Your task to perform on an android device: toggle sleep mode Image 0: 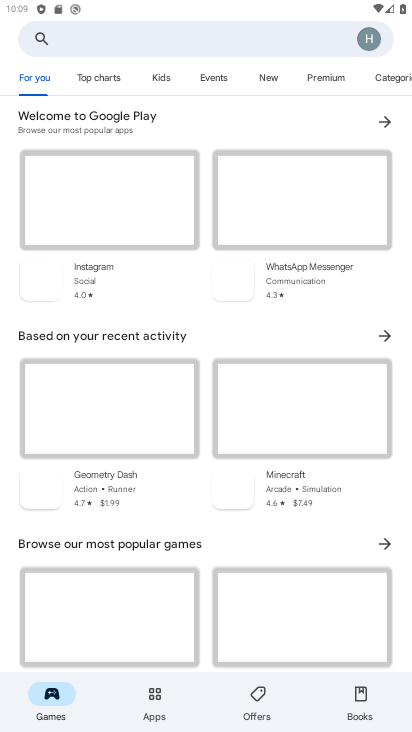
Step 0: press home button
Your task to perform on an android device: toggle sleep mode Image 1: 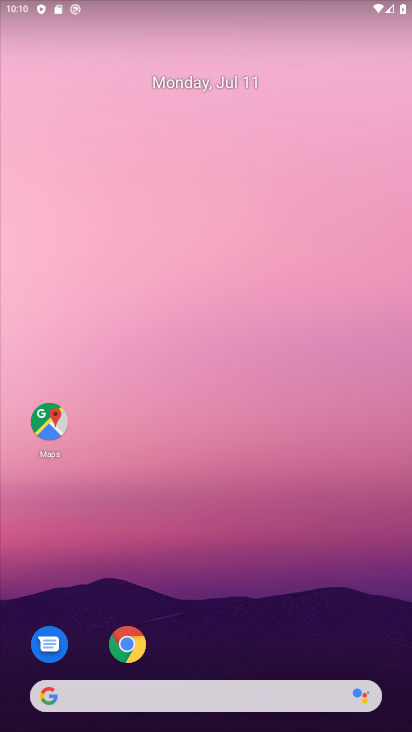
Step 1: drag from (189, 464) to (130, 30)
Your task to perform on an android device: toggle sleep mode Image 2: 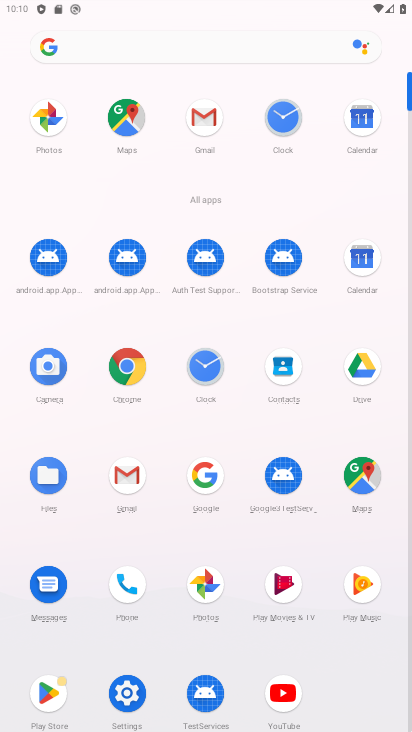
Step 2: click (114, 699)
Your task to perform on an android device: toggle sleep mode Image 3: 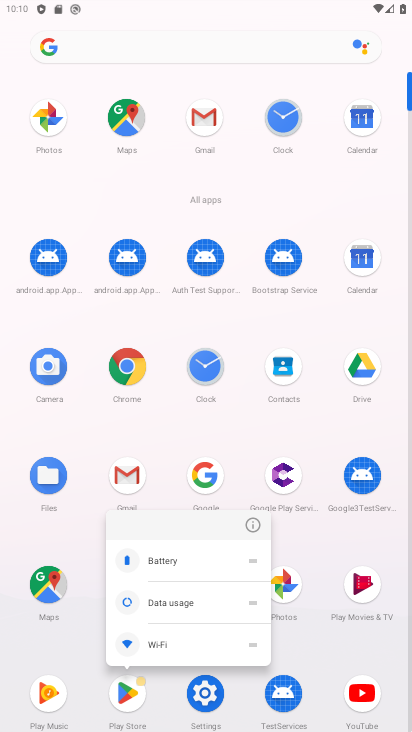
Step 3: click (197, 697)
Your task to perform on an android device: toggle sleep mode Image 4: 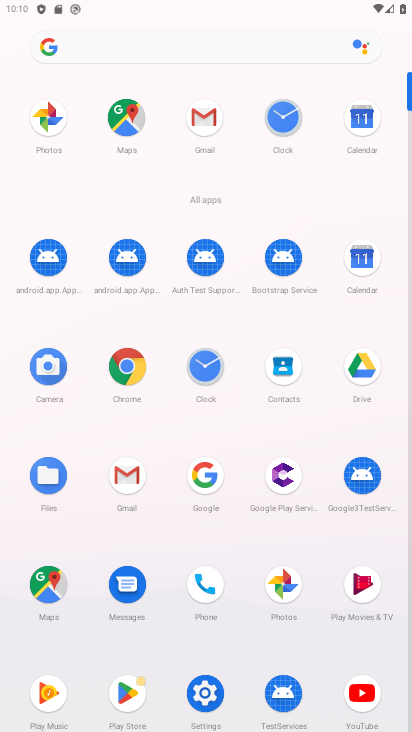
Step 4: click (199, 697)
Your task to perform on an android device: toggle sleep mode Image 5: 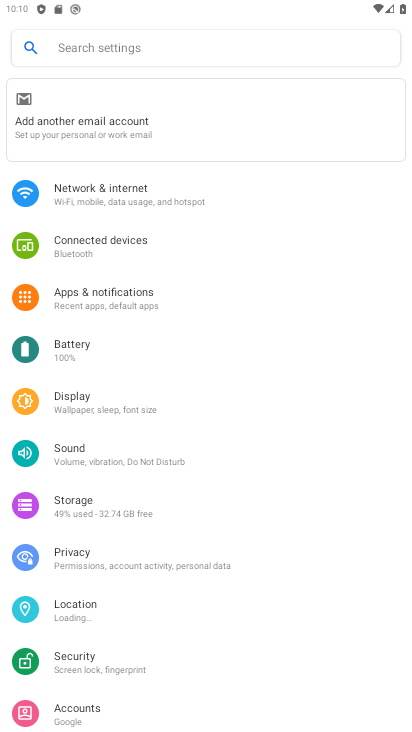
Step 5: click (238, 41)
Your task to perform on an android device: toggle sleep mode Image 6: 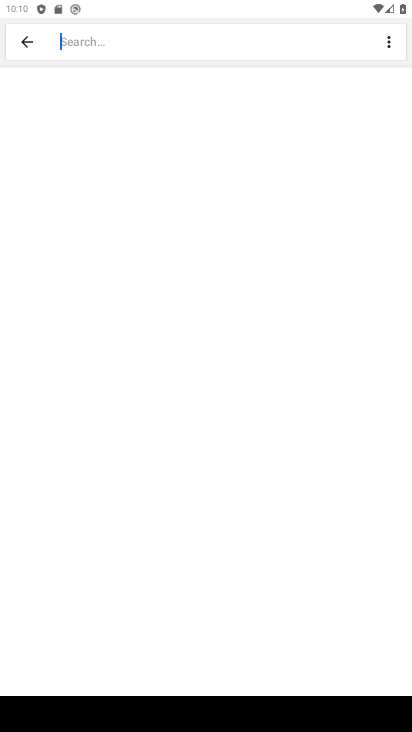
Step 6: type ""
Your task to perform on an android device: toggle sleep mode Image 7: 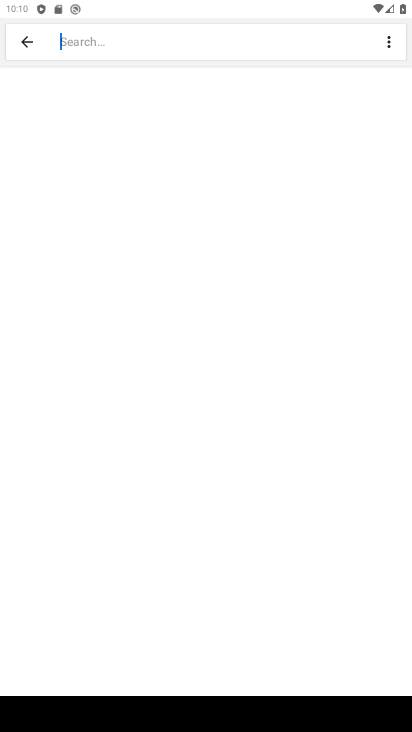
Step 7: type "sleep mode"
Your task to perform on an android device: toggle sleep mode Image 8: 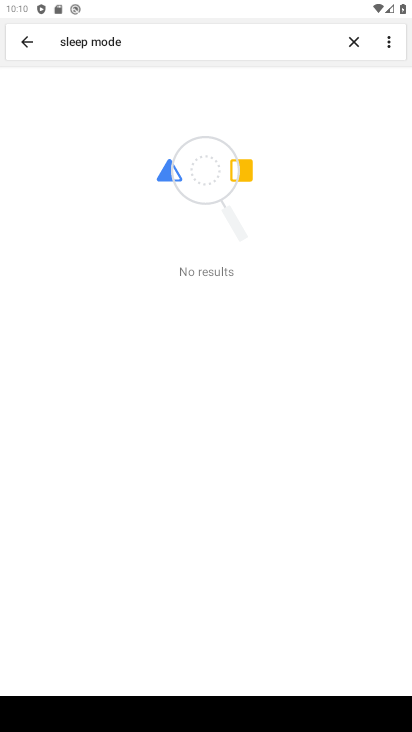
Step 8: task complete